Your task to perform on an android device: Open calendar and show me the third week of next month Image 0: 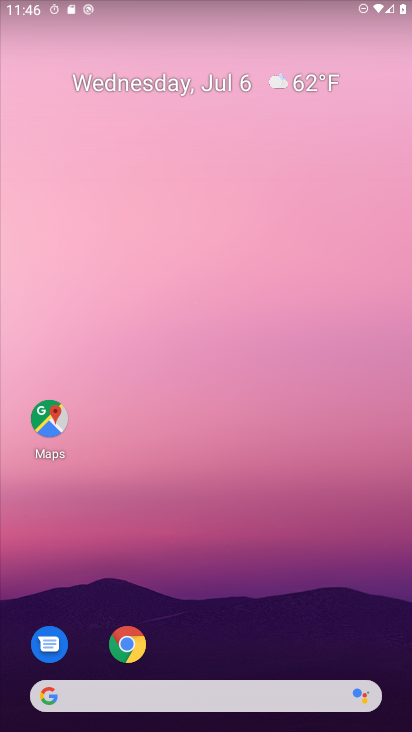
Step 0: press home button
Your task to perform on an android device: Open calendar and show me the third week of next month Image 1: 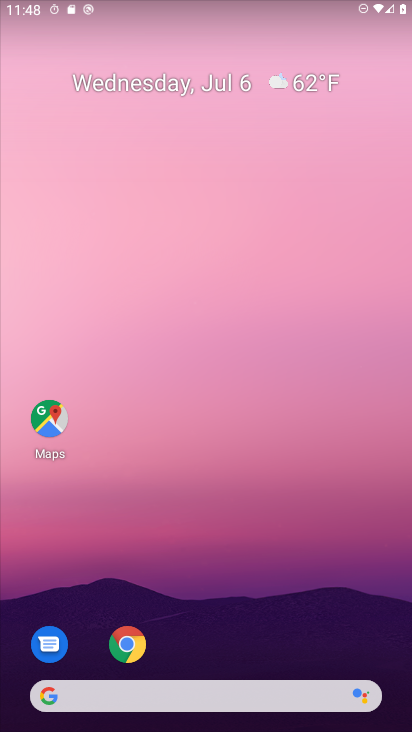
Step 1: press home button
Your task to perform on an android device: Open calendar and show me the third week of next month Image 2: 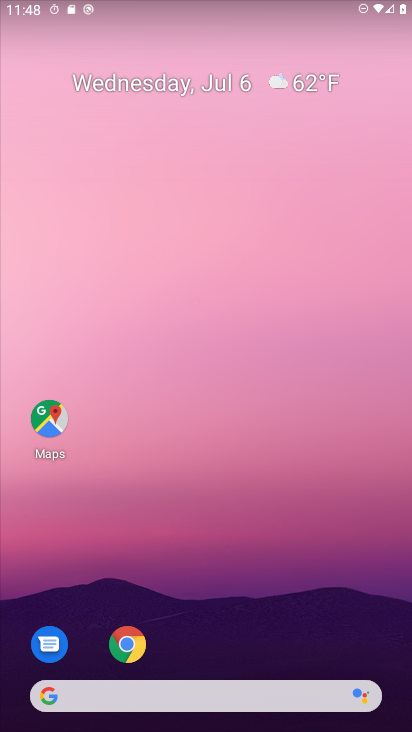
Step 2: drag from (204, 578) to (409, 189)
Your task to perform on an android device: Open calendar and show me the third week of next month Image 3: 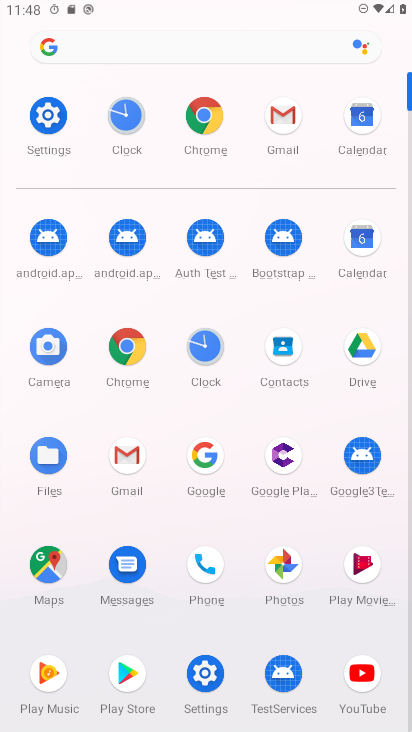
Step 3: click (360, 123)
Your task to perform on an android device: Open calendar and show me the third week of next month Image 4: 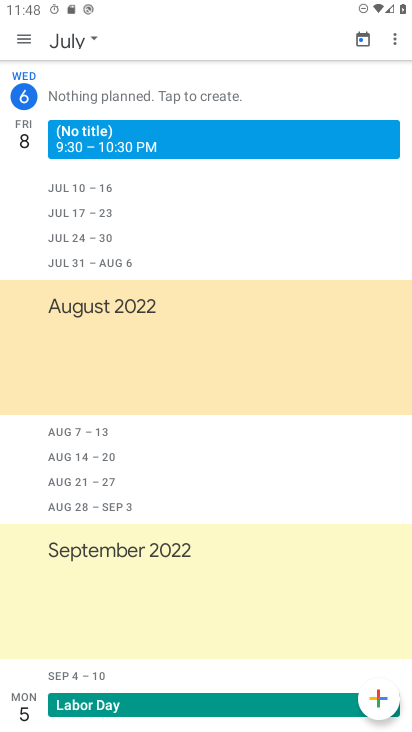
Step 4: task complete